Your task to perform on an android device: open app "Duolingo: language lessons" Image 0: 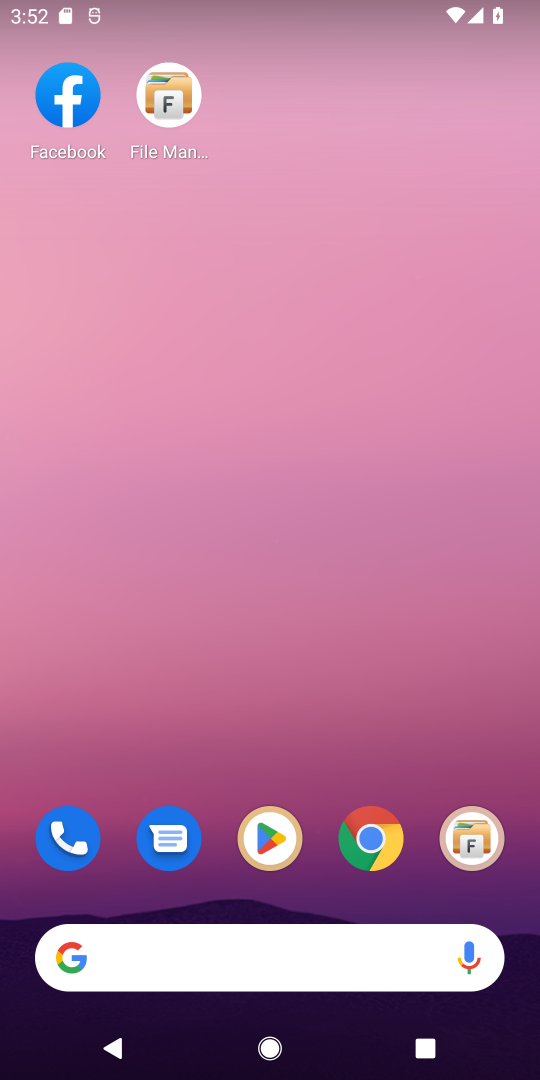
Step 0: click (267, 832)
Your task to perform on an android device: open app "Duolingo: language lessons" Image 1: 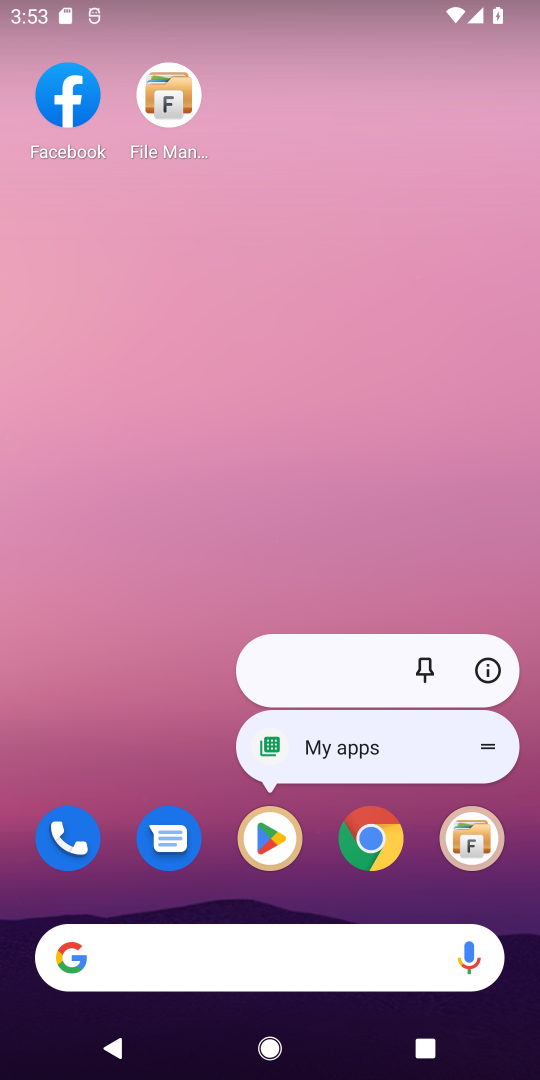
Step 1: click (271, 837)
Your task to perform on an android device: open app "Duolingo: language lessons" Image 2: 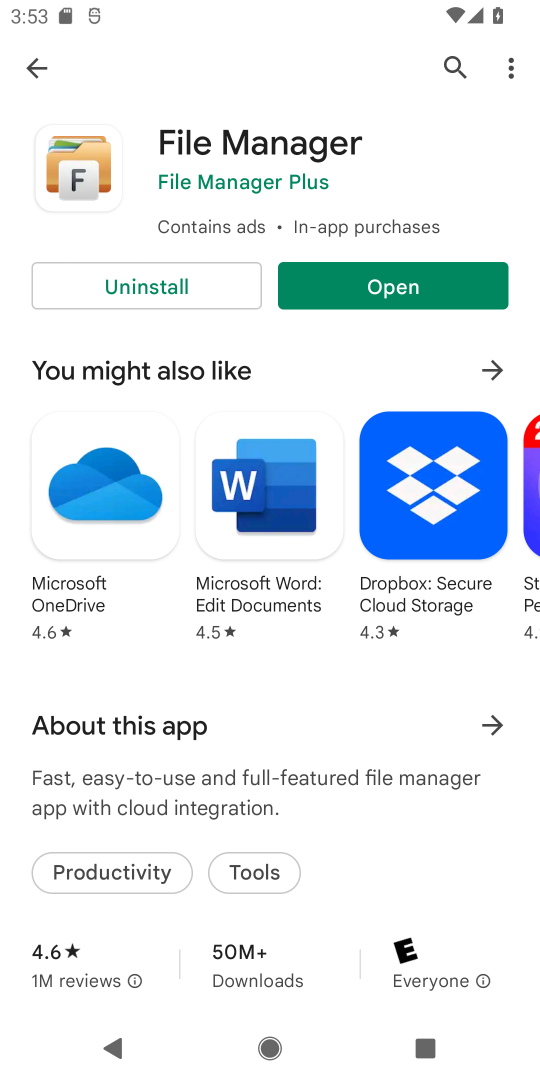
Step 2: click (42, 65)
Your task to perform on an android device: open app "Duolingo: language lessons" Image 3: 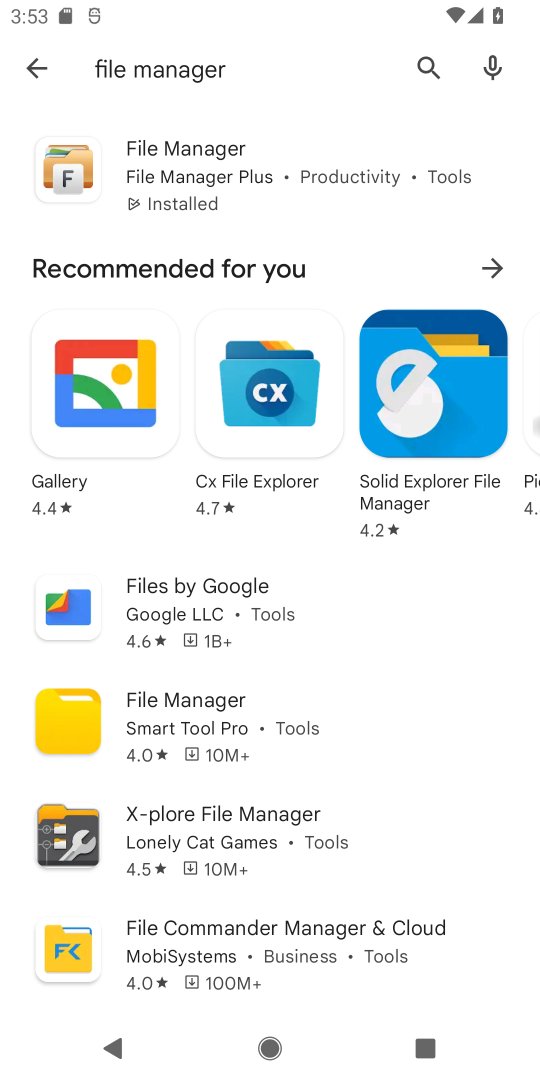
Step 3: click (33, 72)
Your task to perform on an android device: open app "Duolingo: language lessons" Image 4: 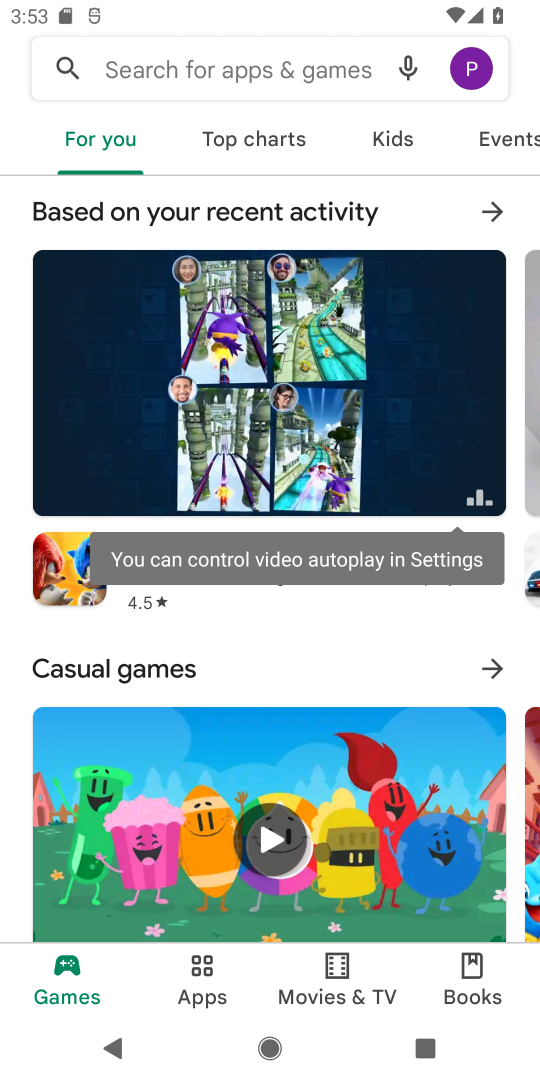
Step 4: click (202, 49)
Your task to perform on an android device: open app "Duolingo: language lessons" Image 5: 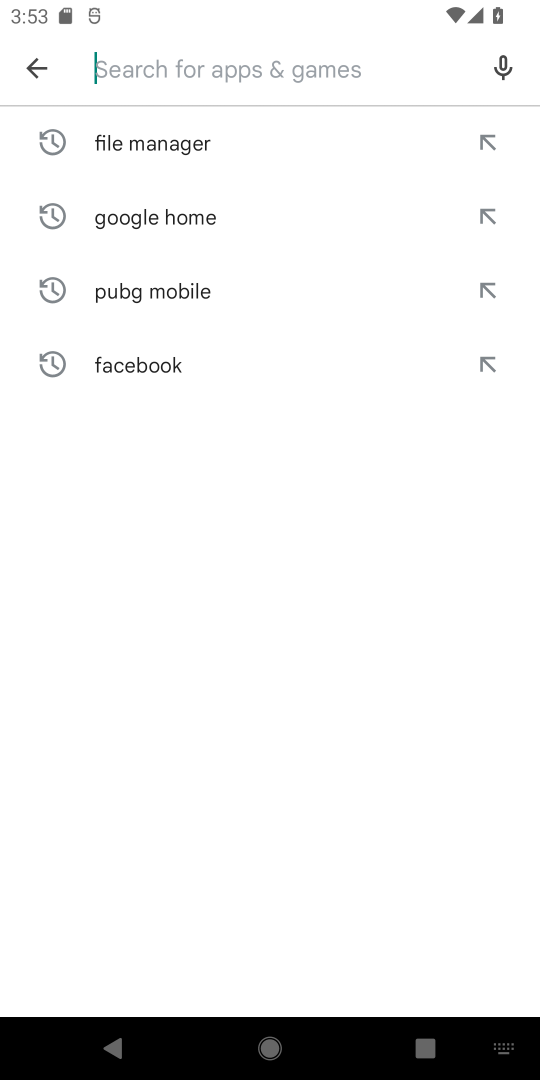
Step 5: type "Duolingo: language lessons"
Your task to perform on an android device: open app "Duolingo: language lessons" Image 6: 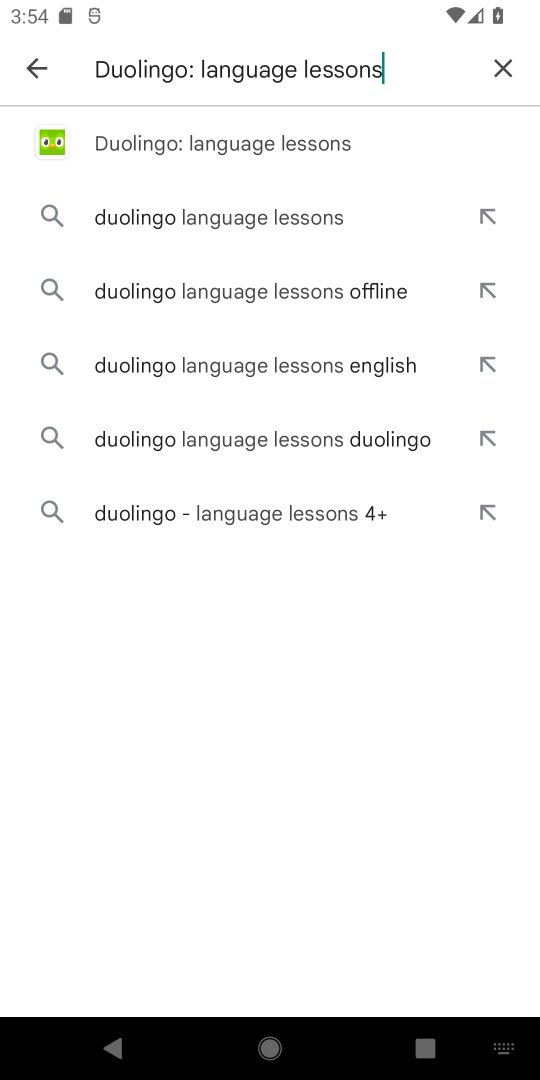
Step 6: click (204, 148)
Your task to perform on an android device: open app "Duolingo: language lessons" Image 7: 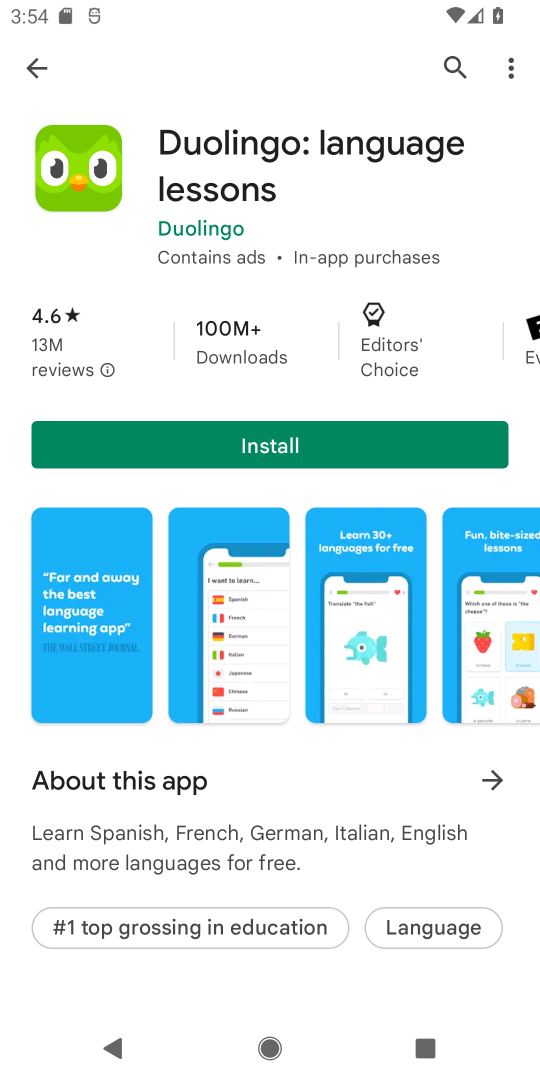
Step 7: task complete